Your task to perform on an android device: Open the Play Movies app and select the watchlist tab. Image 0: 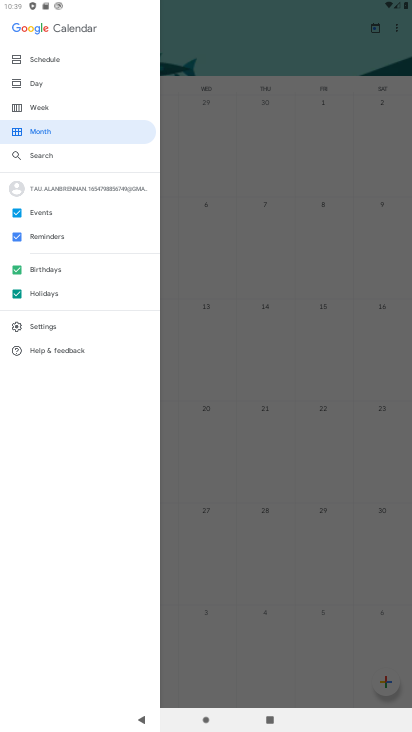
Step 0: press home button
Your task to perform on an android device: Open the Play Movies app and select the watchlist tab. Image 1: 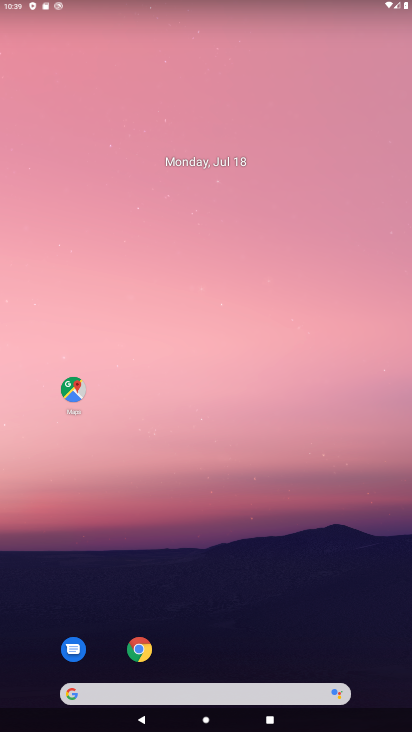
Step 1: drag from (225, 564) to (186, 61)
Your task to perform on an android device: Open the Play Movies app and select the watchlist tab. Image 2: 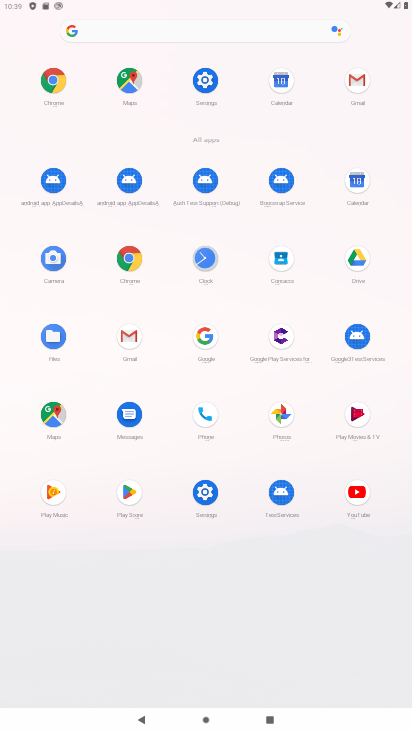
Step 2: click (363, 416)
Your task to perform on an android device: Open the Play Movies app and select the watchlist tab. Image 3: 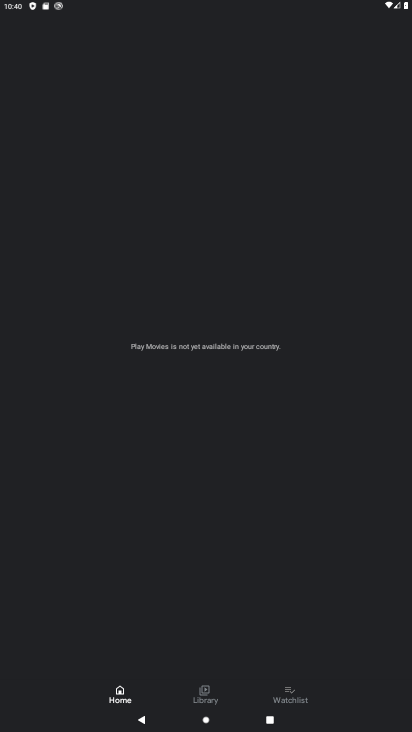
Step 3: click (283, 685)
Your task to perform on an android device: Open the Play Movies app and select the watchlist tab. Image 4: 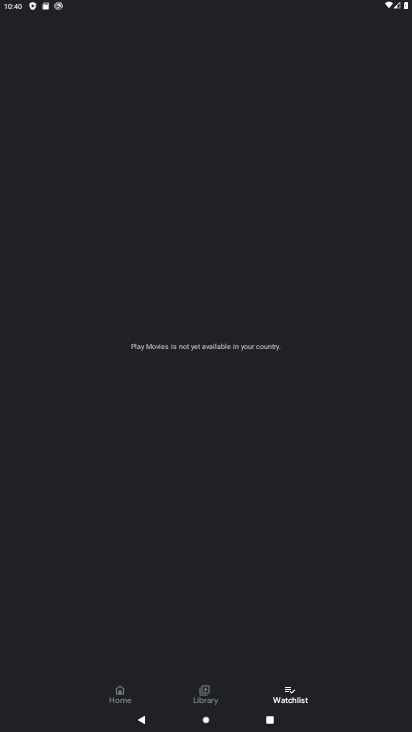
Step 4: task complete